Your task to perform on an android device: turn on the 24-hour format for clock Image 0: 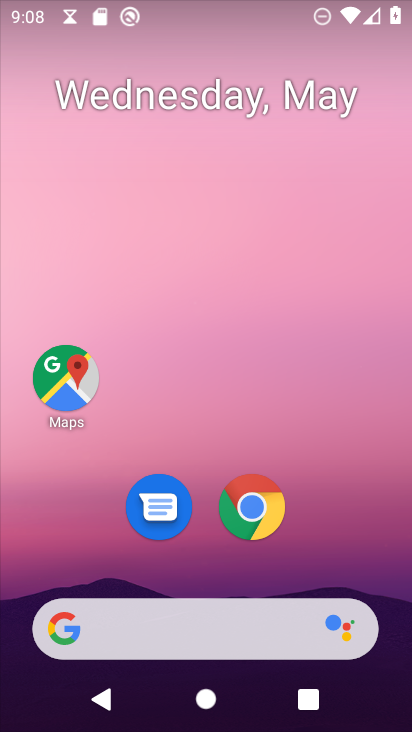
Step 0: drag from (401, 600) to (327, 232)
Your task to perform on an android device: turn on the 24-hour format for clock Image 1: 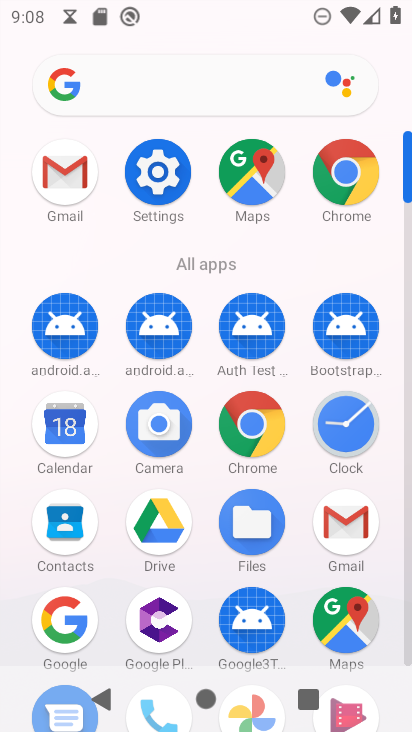
Step 1: click (346, 444)
Your task to perform on an android device: turn on the 24-hour format for clock Image 2: 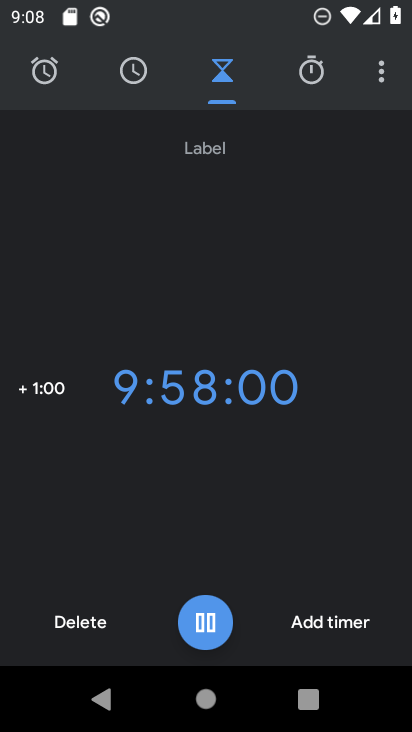
Step 2: click (380, 70)
Your task to perform on an android device: turn on the 24-hour format for clock Image 3: 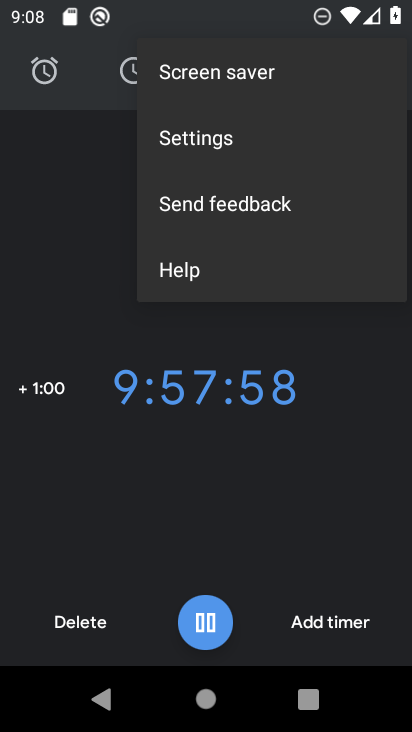
Step 3: click (289, 133)
Your task to perform on an android device: turn on the 24-hour format for clock Image 4: 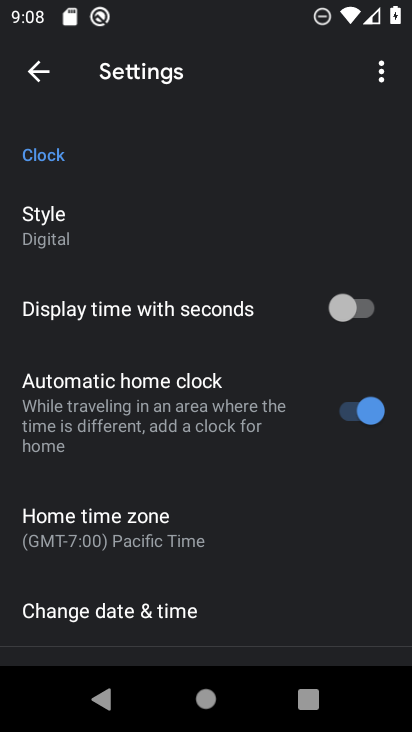
Step 4: drag from (308, 606) to (281, 139)
Your task to perform on an android device: turn on the 24-hour format for clock Image 5: 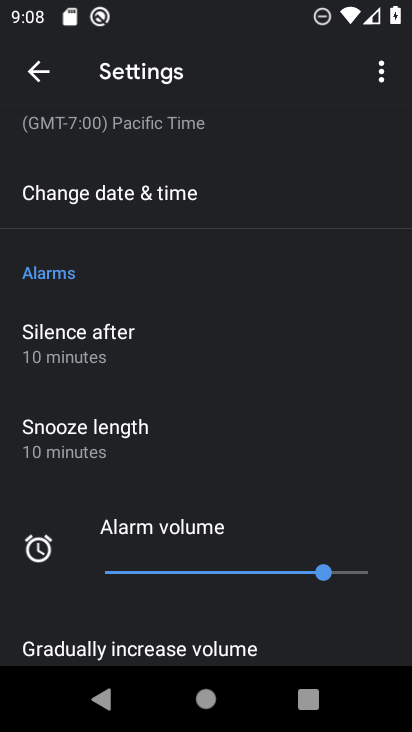
Step 5: click (237, 199)
Your task to perform on an android device: turn on the 24-hour format for clock Image 6: 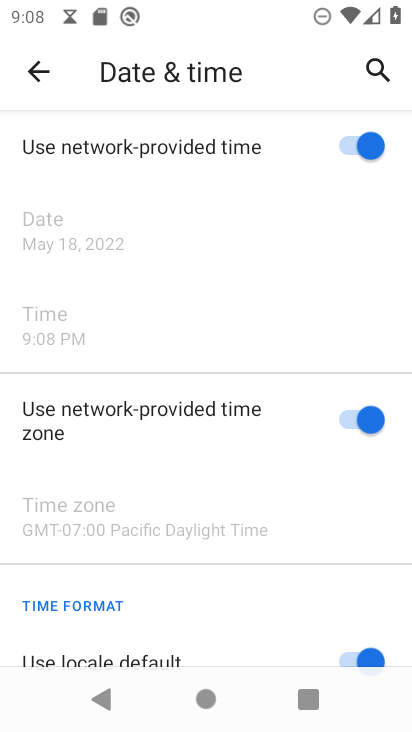
Step 6: drag from (241, 636) to (229, 229)
Your task to perform on an android device: turn on the 24-hour format for clock Image 7: 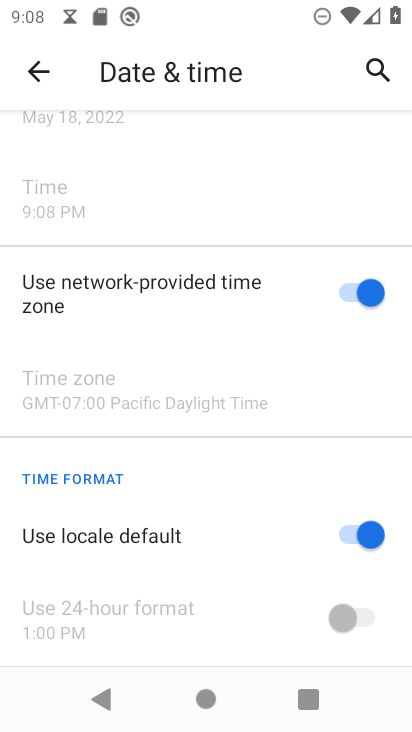
Step 7: click (353, 527)
Your task to perform on an android device: turn on the 24-hour format for clock Image 8: 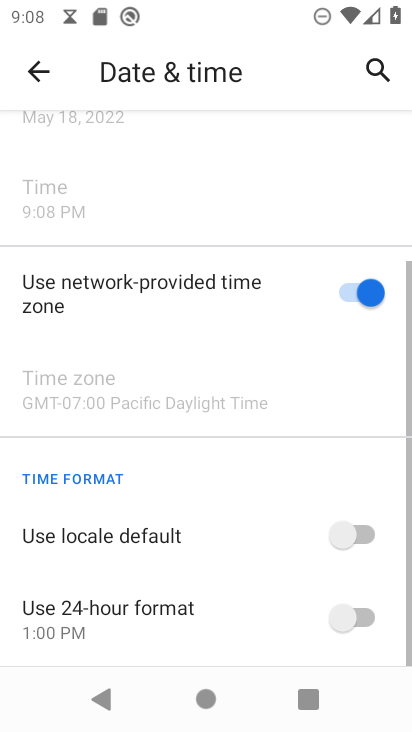
Step 8: click (361, 629)
Your task to perform on an android device: turn on the 24-hour format for clock Image 9: 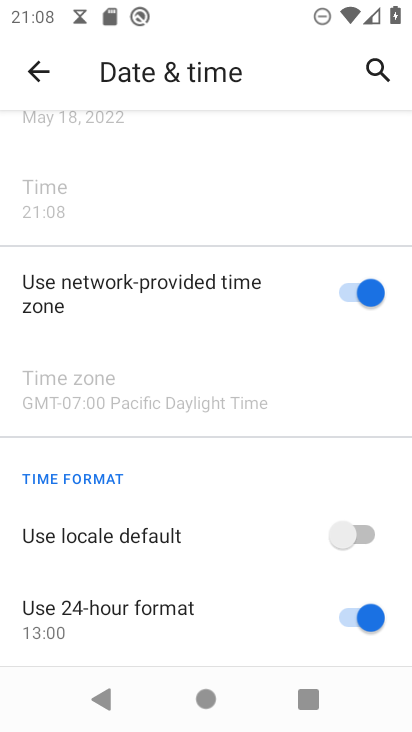
Step 9: task complete